Your task to perform on an android device: Is it going to rain this weekend? Image 0: 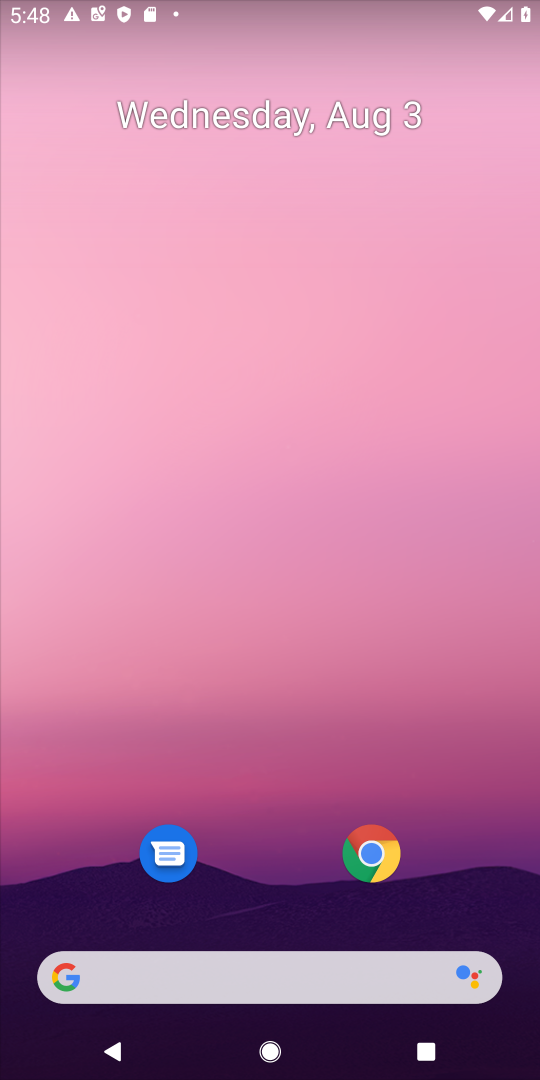
Step 0: click (314, 978)
Your task to perform on an android device: Is it going to rain this weekend? Image 1: 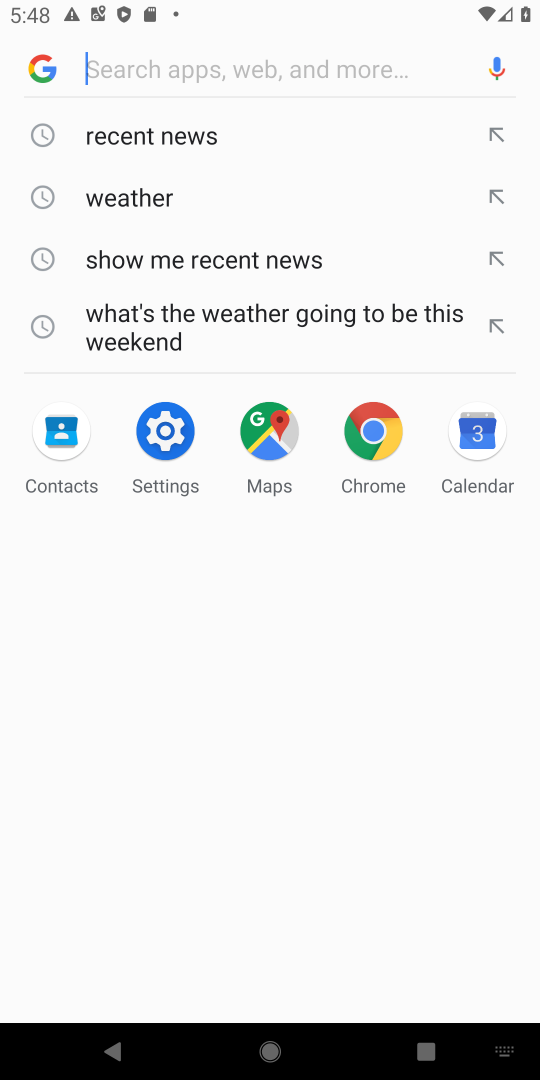
Step 1: type "weather"
Your task to perform on an android device: Is it going to rain this weekend? Image 2: 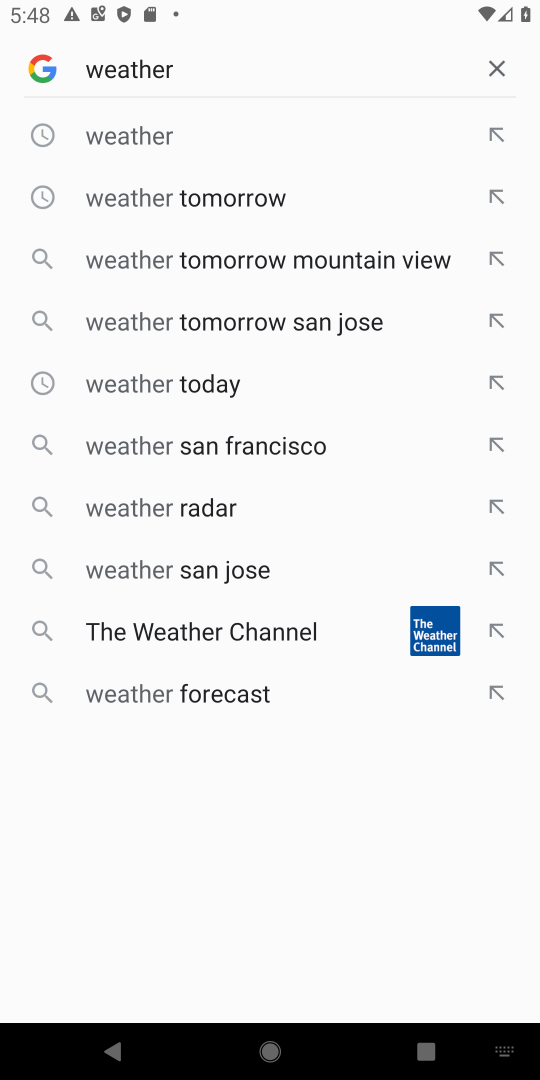
Step 2: click (226, 135)
Your task to perform on an android device: Is it going to rain this weekend? Image 3: 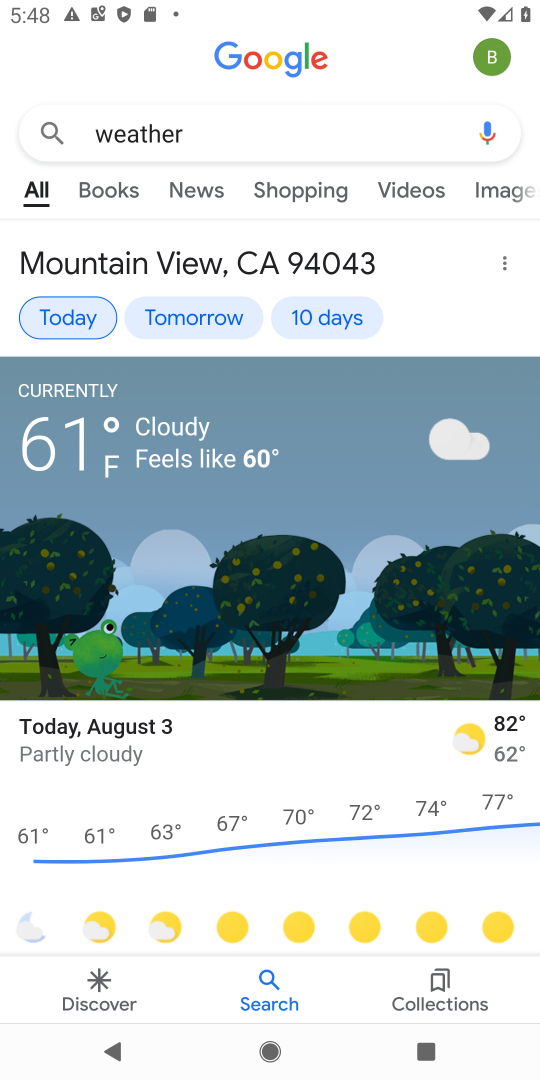
Step 3: click (325, 320)
Your task to perform on an android device: Is it going to rain this weekend? Image 4: 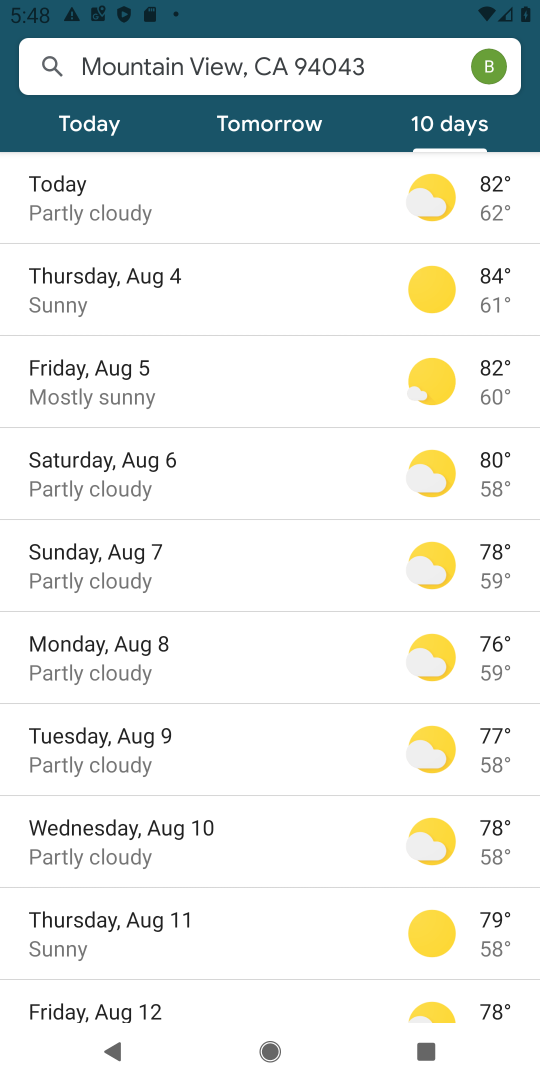
Step 4: click (162, 485)
Your task to perform on an android device: Is it going to rain this weekend? Image 5: 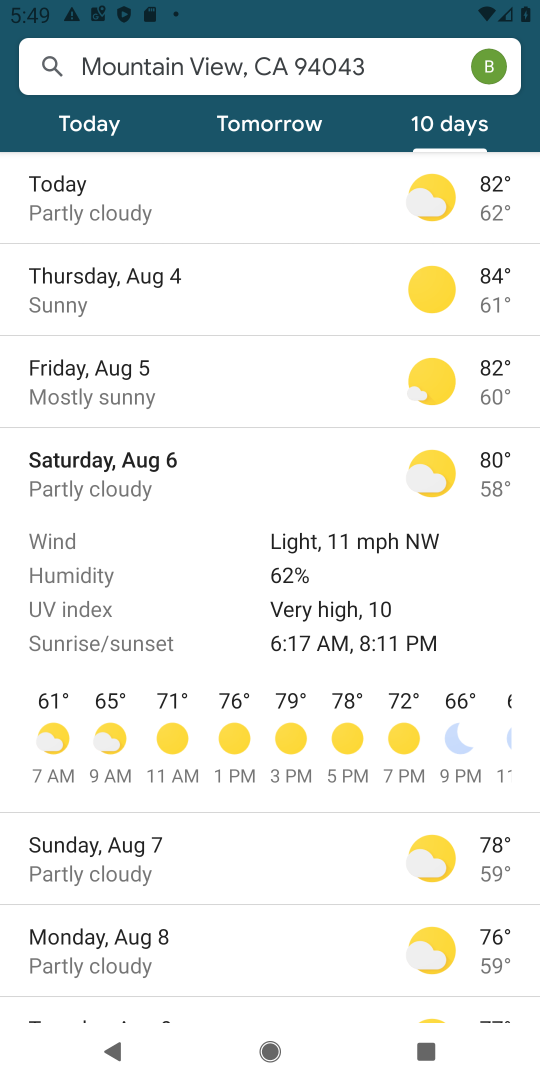
Step 5: task complete